Your task to perform on an android device: Open Google Image 0: 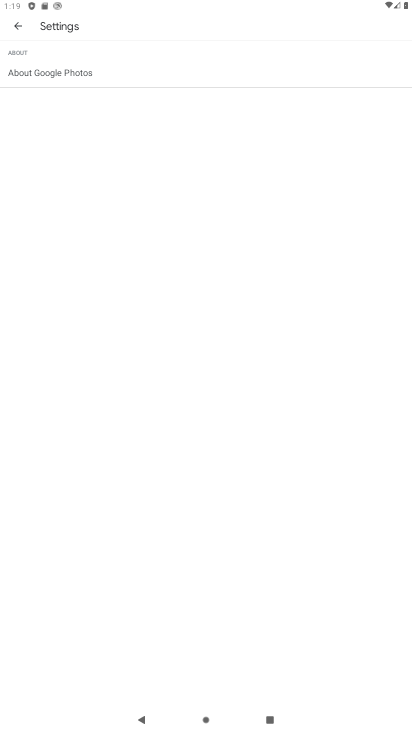
Step 0: press home button
Your task to perform on an android device: Open Google Image 1: 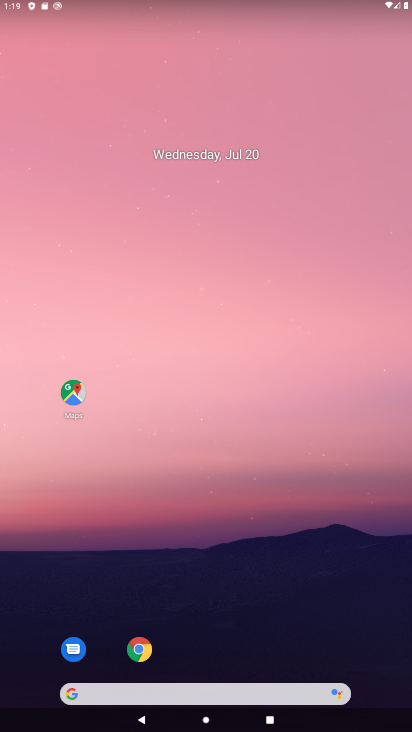
Step 1: drag from (277, 677) to (286, 206)
Your task to perform on an android device: Open Google Image 2: 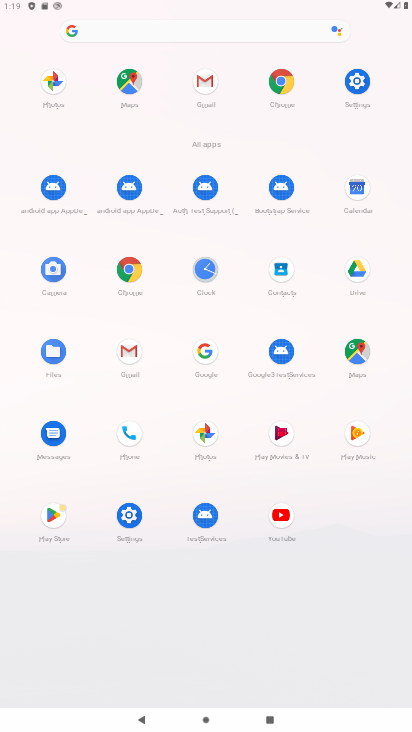
Step 2: click (204, 350)
Your task to perform on an android device: Open Google Image 3: 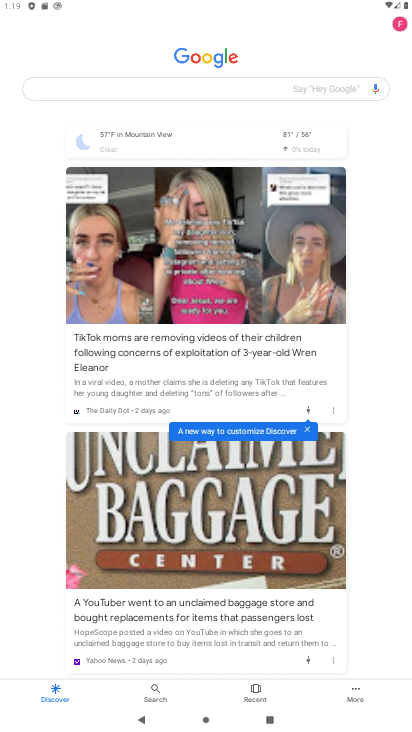
Step 3: task complete